Your task to perform on an android device: open chrome privacy settings Image 0: 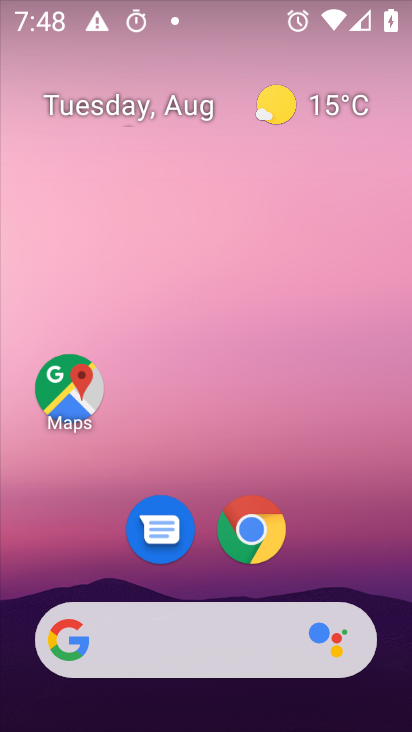
Step 0: press home button
Your task to perform on an android device: open chrome privacy settings Image 1: 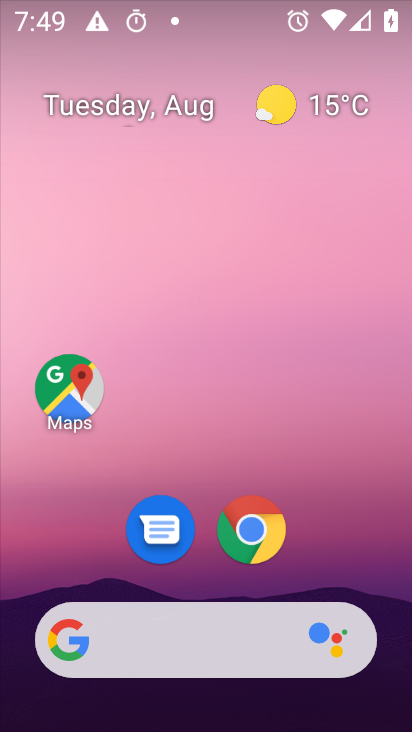
Step 1: click (251, 523)
Your task to perform on an android device: open chrome privacy settings Image 2: 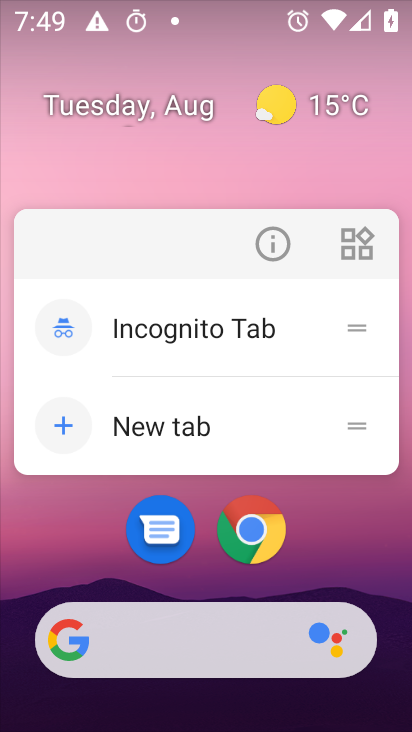
Step 2: click (256, 509)
Your task to perform on an android device: open chrome privacy settings Image 3: 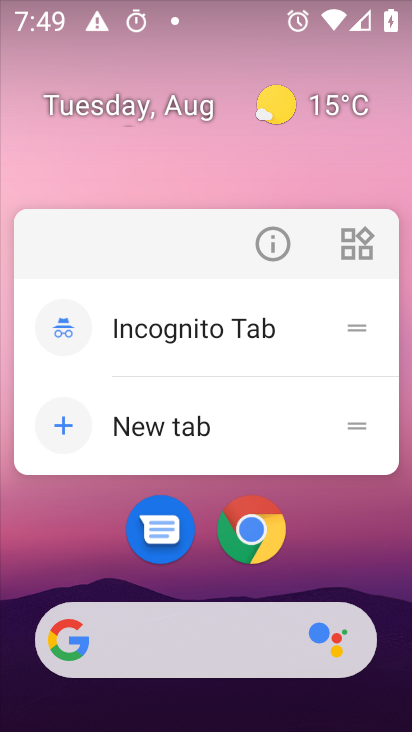
Step 3: click (263, 532)
Your task to perform on an android device: open chrome privacy settings Image 4: 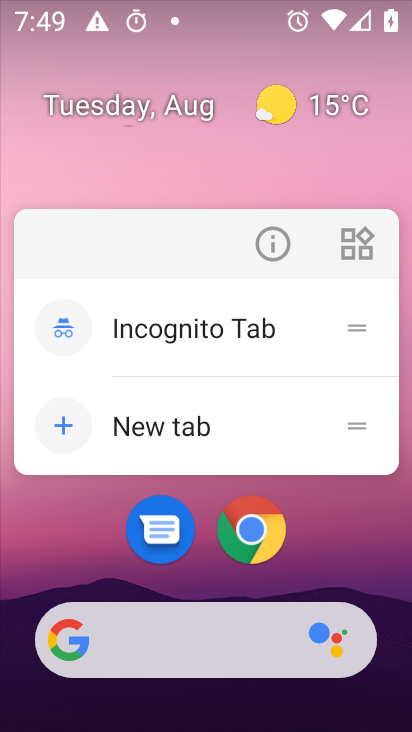
Step 4: click (263, 531)
Your task to perform on an android device: open chrome privacy settings Image 5: 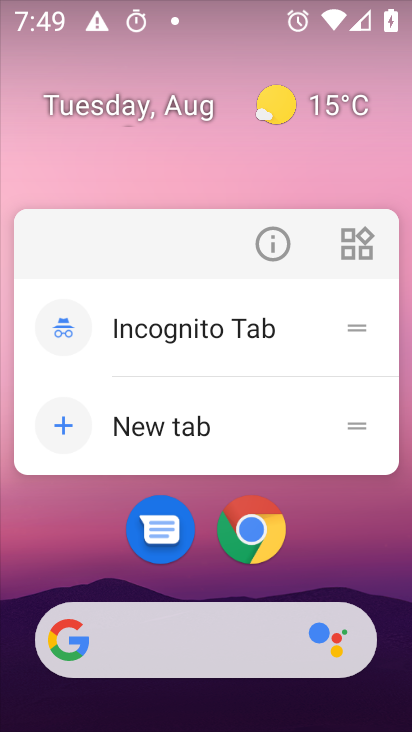
Step 5: click (258, 529)
Your task to perform on an android device: open chrome privacy settings Image 6: 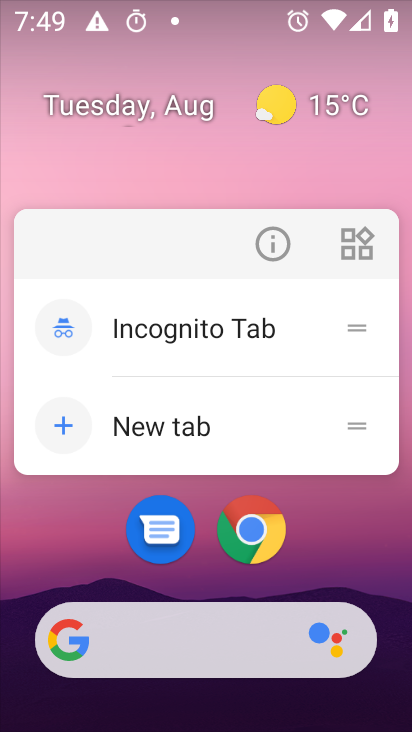
Step 6: click (258, 529)
Your task to perform on an android device: open chrome privacy settings Image 7: 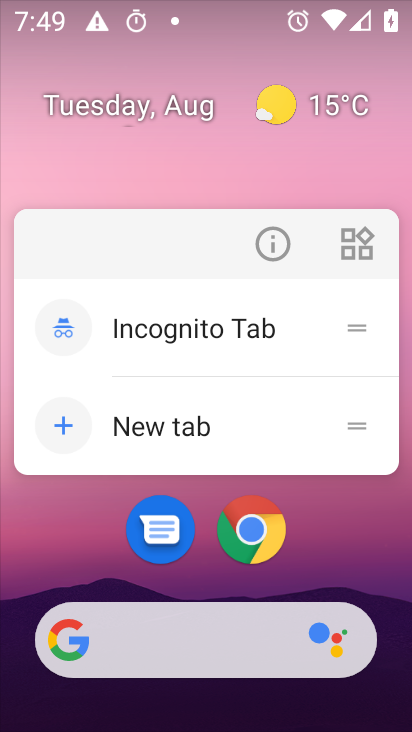
Step 7: click (258, 530)
Your task to perform on an android device: open chrome privacy settings Image 8: 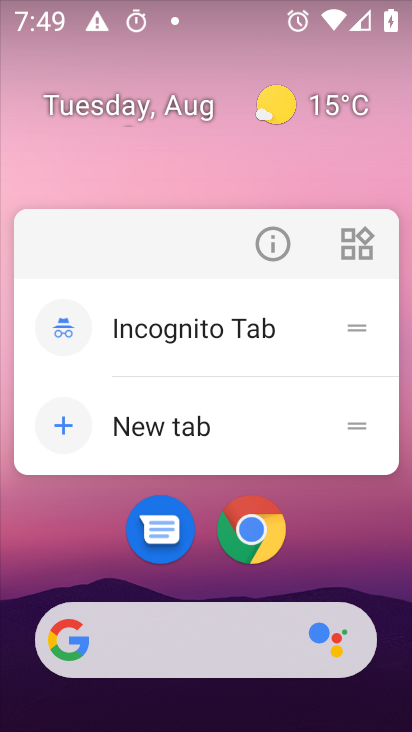
Step 8: click (258, 529)
Your task to perform on an android device: open chrome privacy settings Image 9: 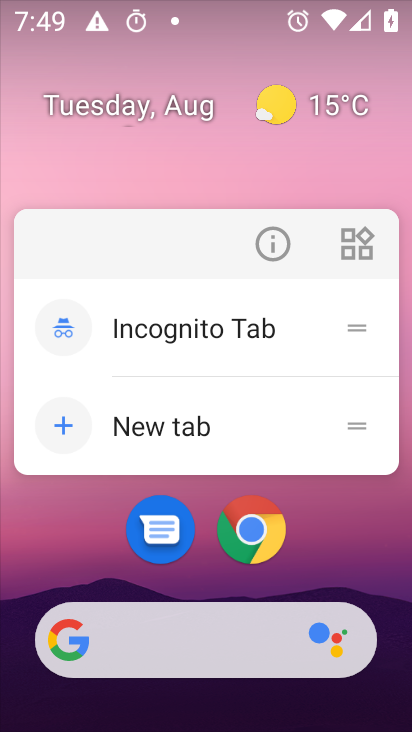
Step 9: click (258, 529)
Your task to perform on an android device: open chrome privacy settings Image 10: 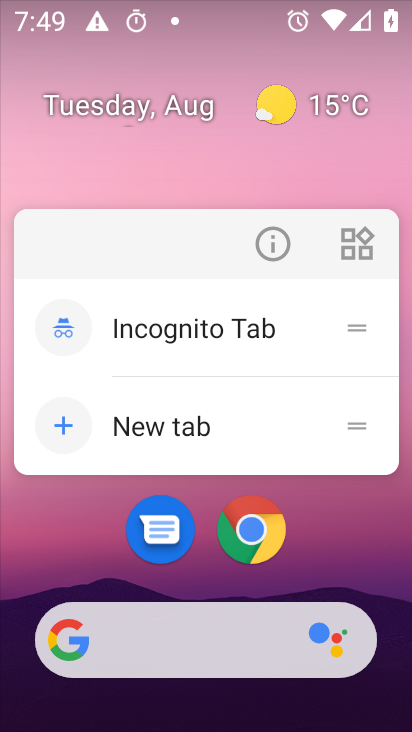
Step 10: click (254, 539)
Your task to perform on an android device: open chrome privacy settings Image 11: 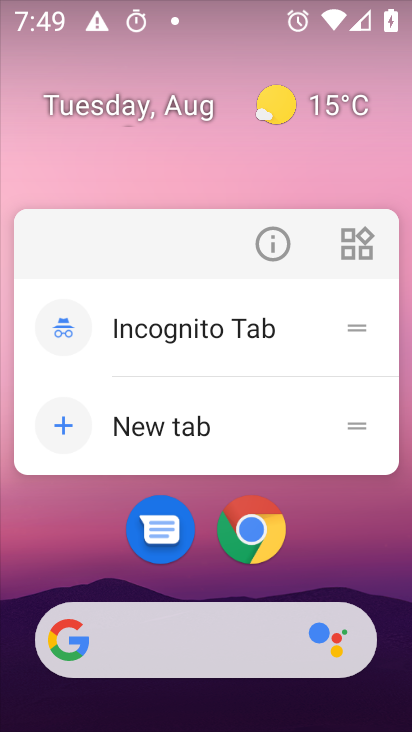
Step 11: click (254, 539)
Your task to perform on an android device: open chrome privacy settings Image 12: 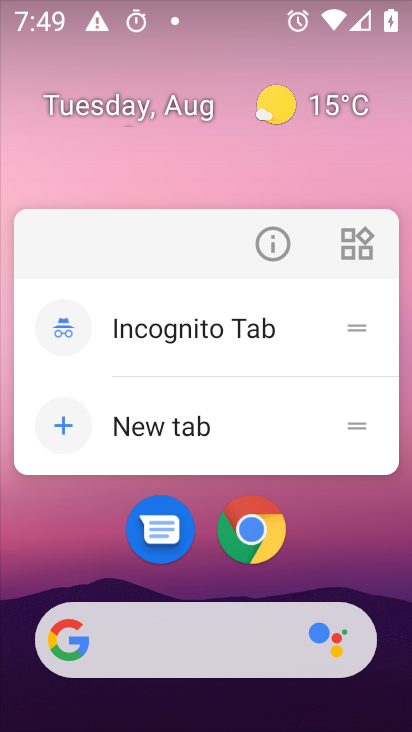
Step 12: click (254, 539)
Your task to perform on an android device: open chrome privacy settings Image 13: 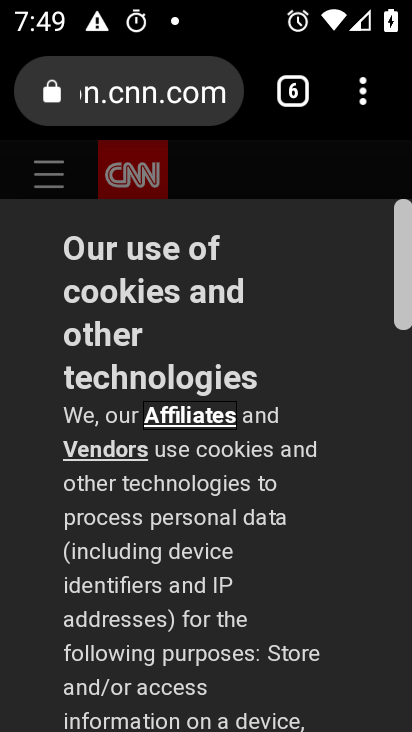
Step 13: drag from (361, 95) to (96, 559)
Your task to perform on an android device: open chrome privacy settings Image 14: 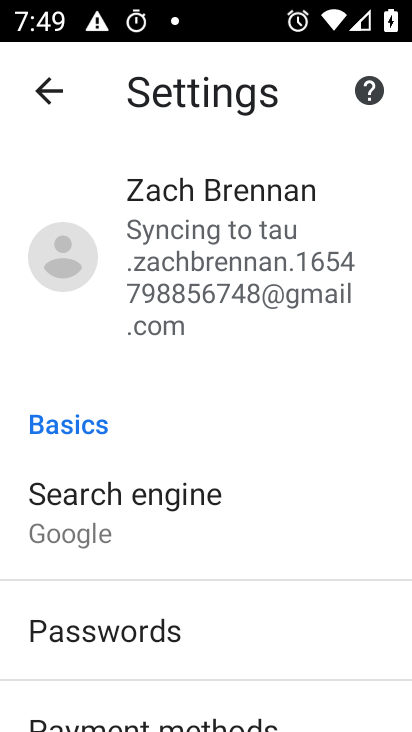
Step 14: drag from (270, 657) to (281, 144)
Your task to perform on an android device: open chrome privacy settings Image 15: 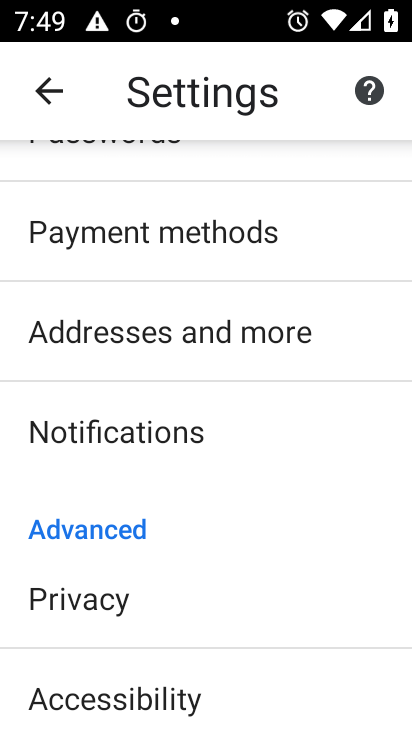
Step 15: click (79, 600)
Your task to perform on an android device: open chrome privacy settings Image 16: 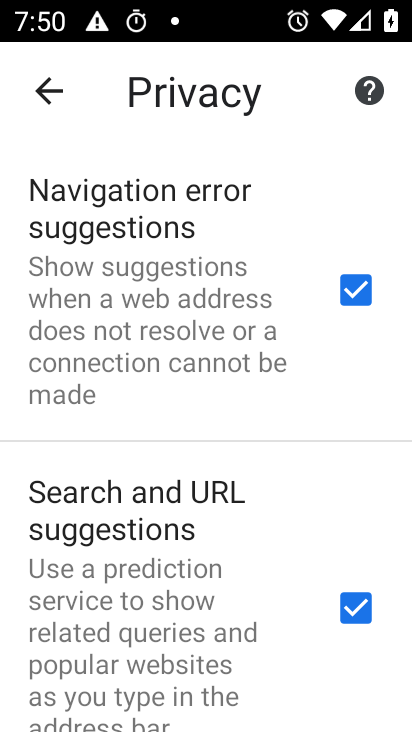
Step 16: press home button
Your task to perform on an android device: open chrome privacy settings Image 17: 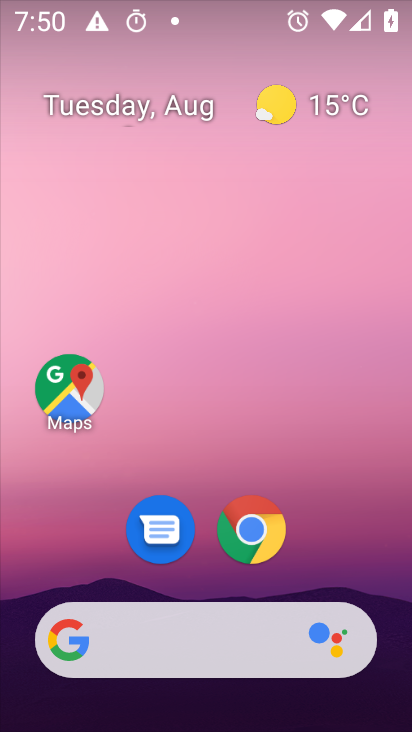
Step 17: click (248, 536)
Your task to perform on an android device: open chrome privacy settings Image 18: 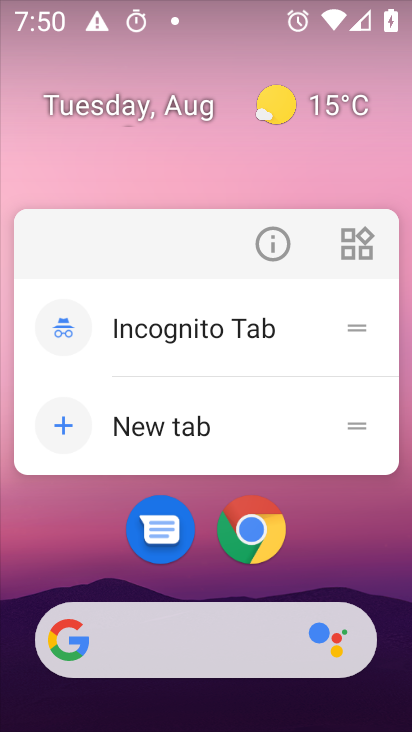
Step 18: click (248, 536)
Your task to perform on an android device: open chrome privacy settings Image 19: 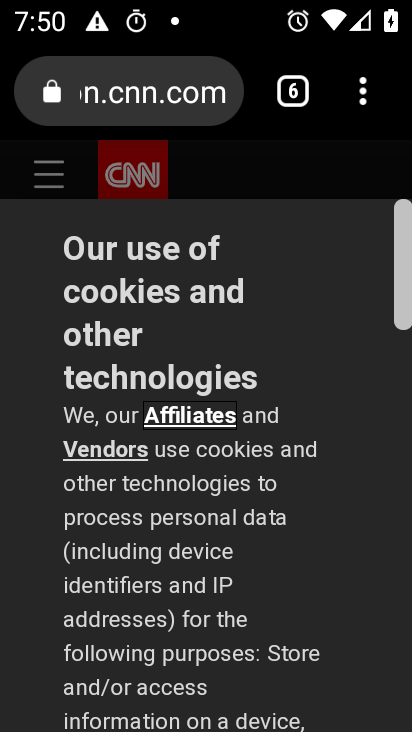
Step 19: drag from (367, 82) to (139, 568)
Your task to perform on an android device: open chrome privacy settings Image 20: 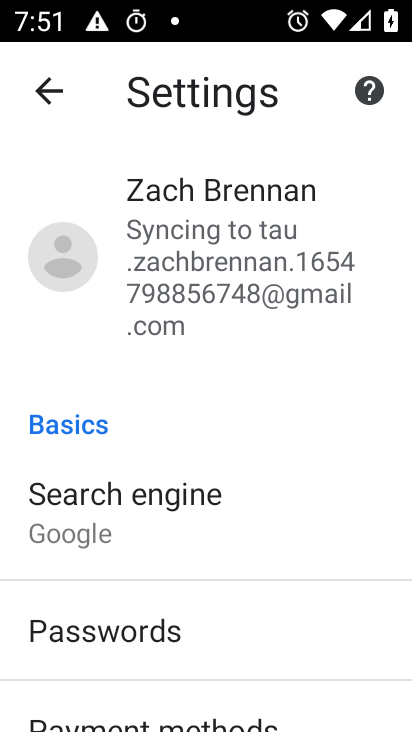
Step 20: drag from (335, 649) to (390, 209)
Your task to perform on an android device: open chrome privacy settings Image 21: 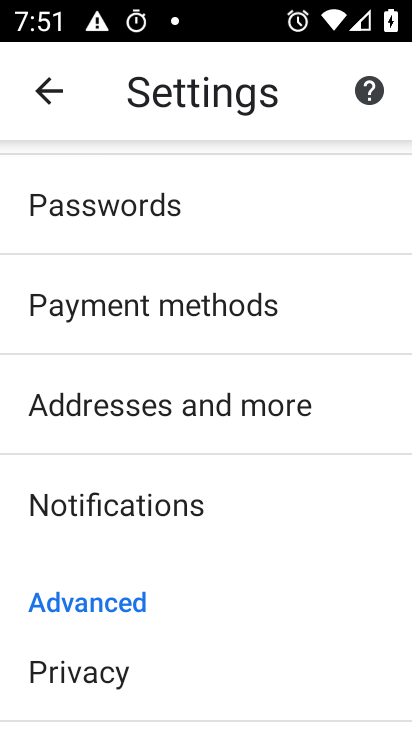
Step 21: click (102, 671)
Your task to perform on an android device: open chrome privacy settings Image 22: 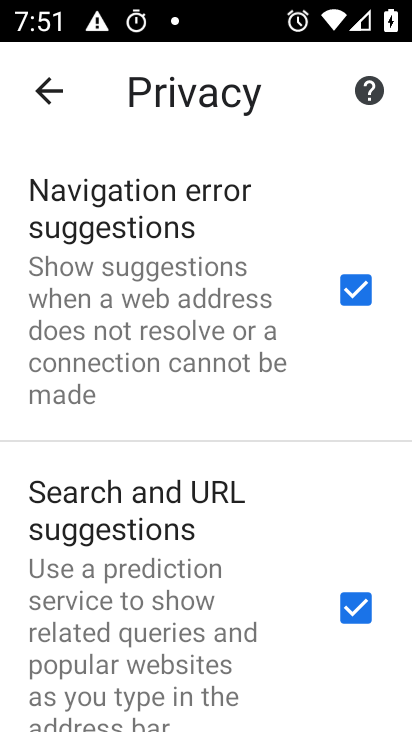
Step 22: task complete